Your task to perform on an android device: Open settings Image 0: 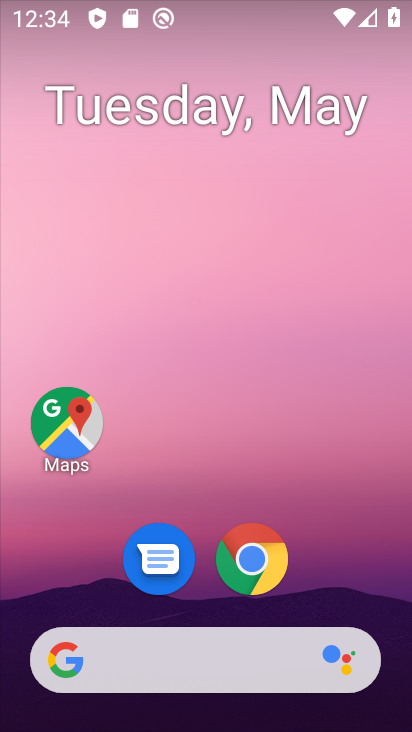
Step 0: drag from (332, 565) to (321, 95)
Your task to perform on an android device: Open settings Image 1: 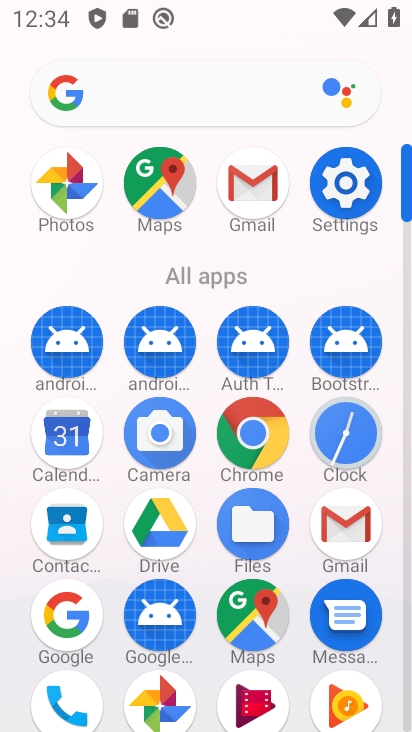
Step 1: click (359, 173)
Your task to perform on an android device: Open settings Image 2: 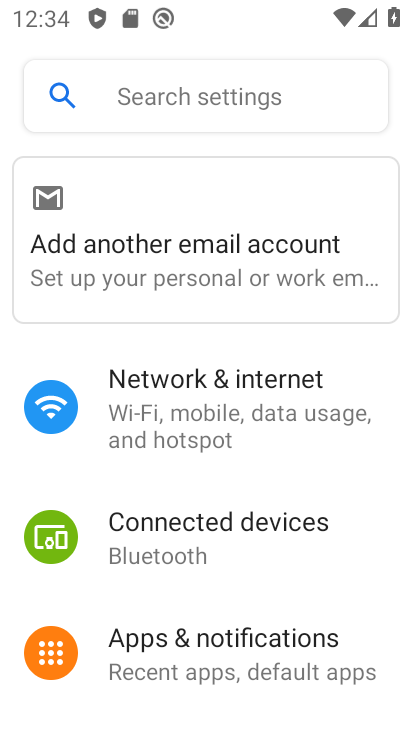
Step 2: task complete